Your task to perform on an android device: turn off airplane mode Image 0: 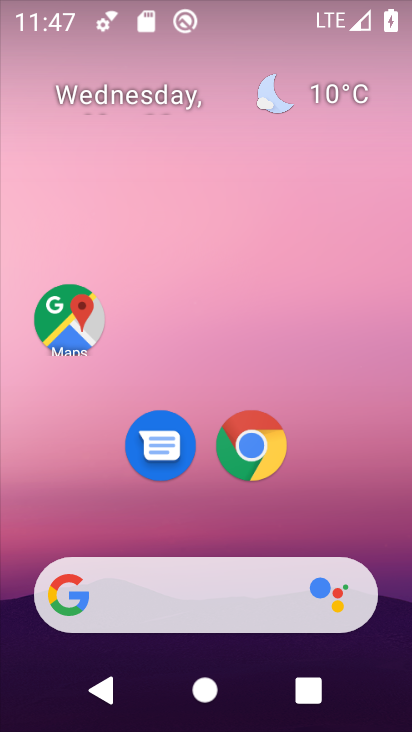
Step 0: drag from (299, 16) to (256, 554)
Your task to perform on an android device: turn off airplane mode Image 1: 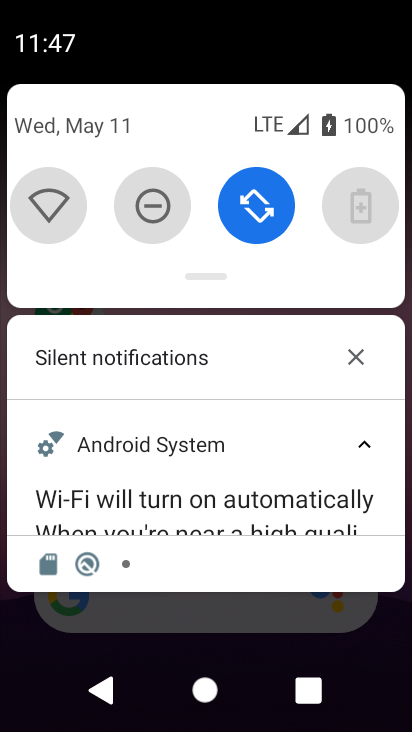
Step 1: task complete